Your task to perform on an android device: Search for pizza restaurants on Maps Image 0: 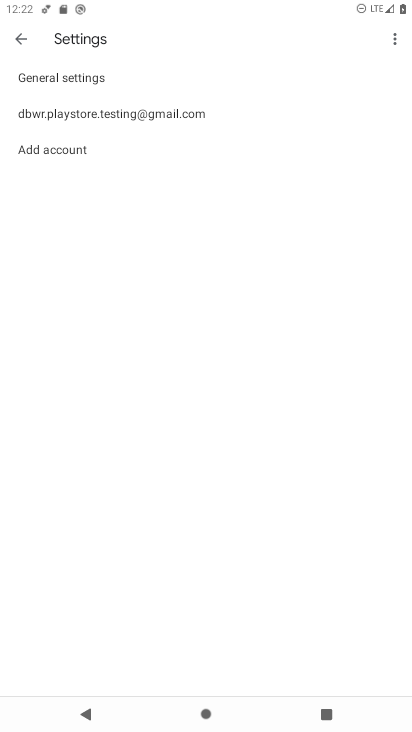
Step 0: press home button
Your task to perform on an android device: Search for pizza restaurants on Maps Image 1: 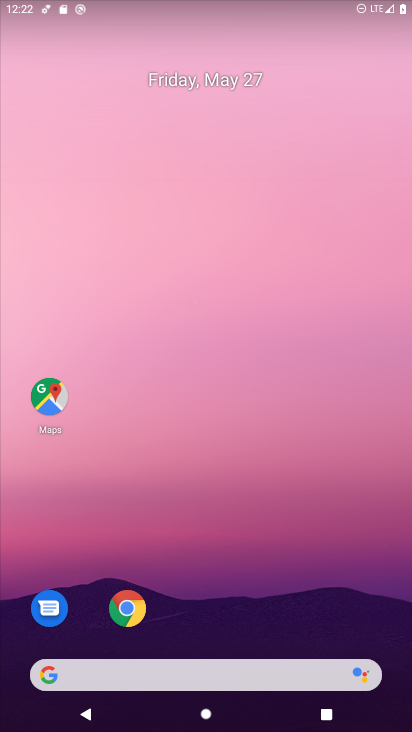
Step 1: click (42, 393)
Your task to perform on an android device: Search for pizza restaurants on Maps Image 2: 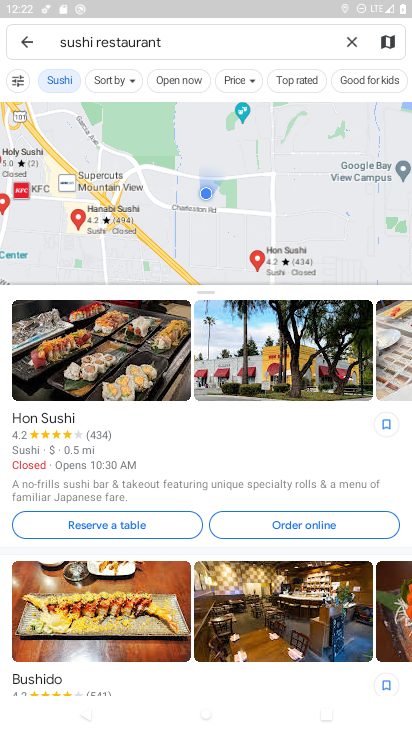
Step 2: click (351, 36)
Your task to perform on an android device: Search for pizza restaurants on Maps Image 3: 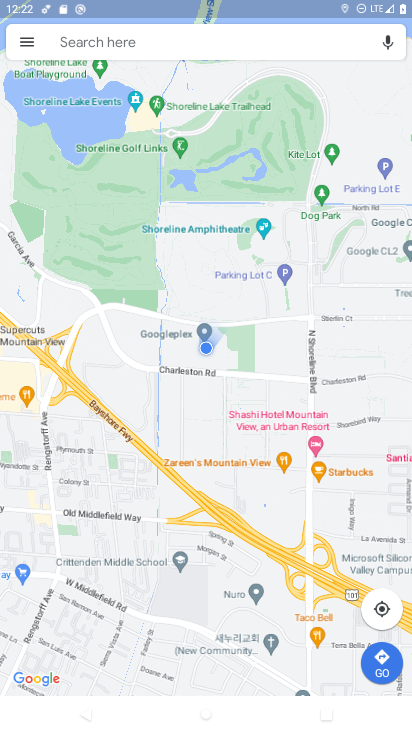
Step 3: click (216, 40)
Your task to perform on an android device: Search for pizza restaurants on Maps Image 4: 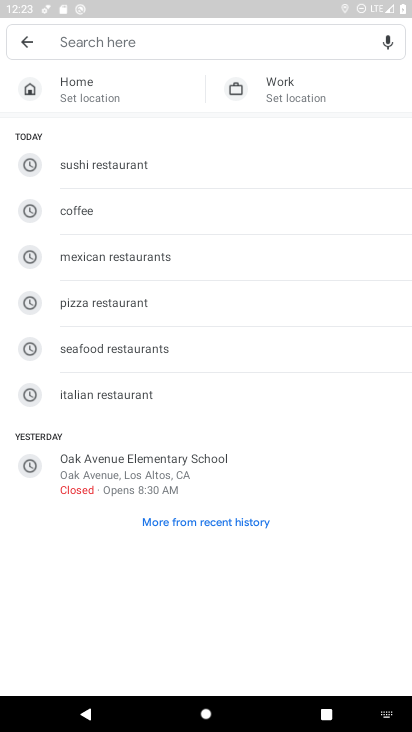
Step 4: click (114, 301)
Your task to perform on an android device: Search for pizza restaurants on Maps Image 5: 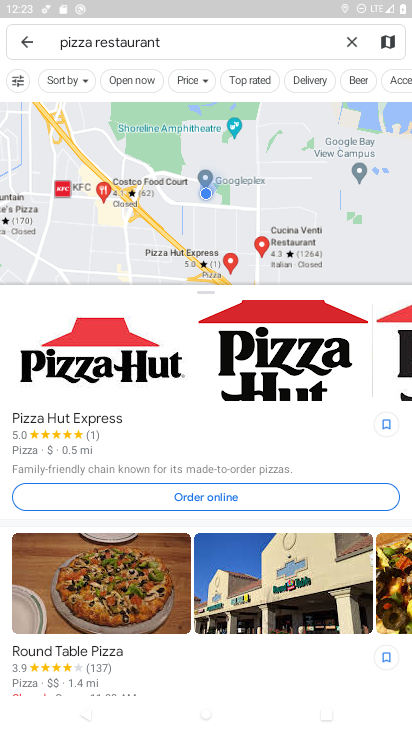
Step 5: task complete